Your task to perform on an android device: Search for acer predator on walmart.com, select the first entry, and add it to the cart. Image 0: 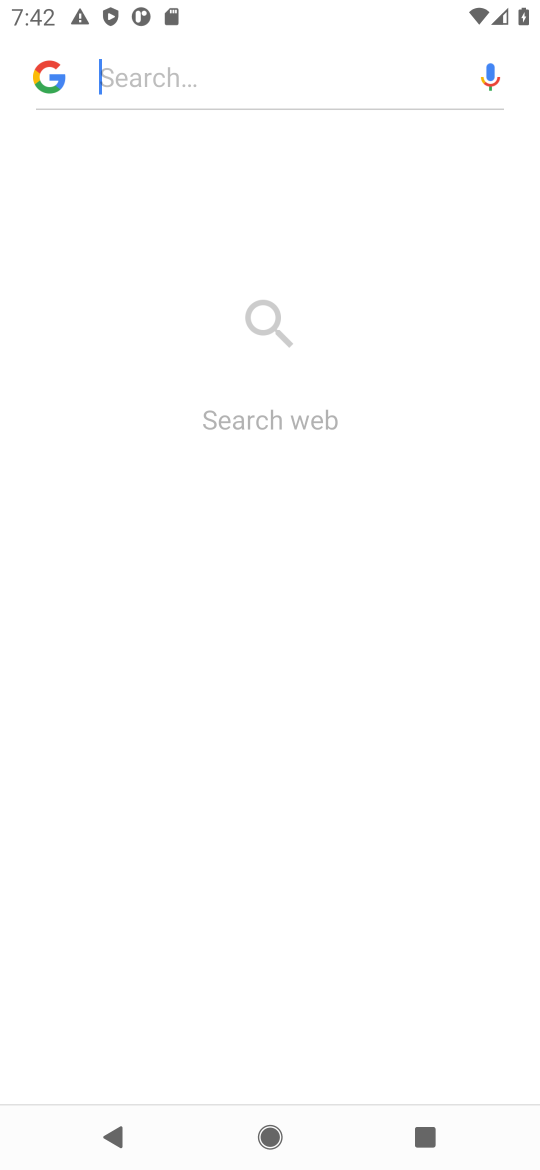
Step 0: press home button
Your task to perform on an android device: Search for acer predator on walmart.com, select the first entry, and add it to the cart. Image 1: 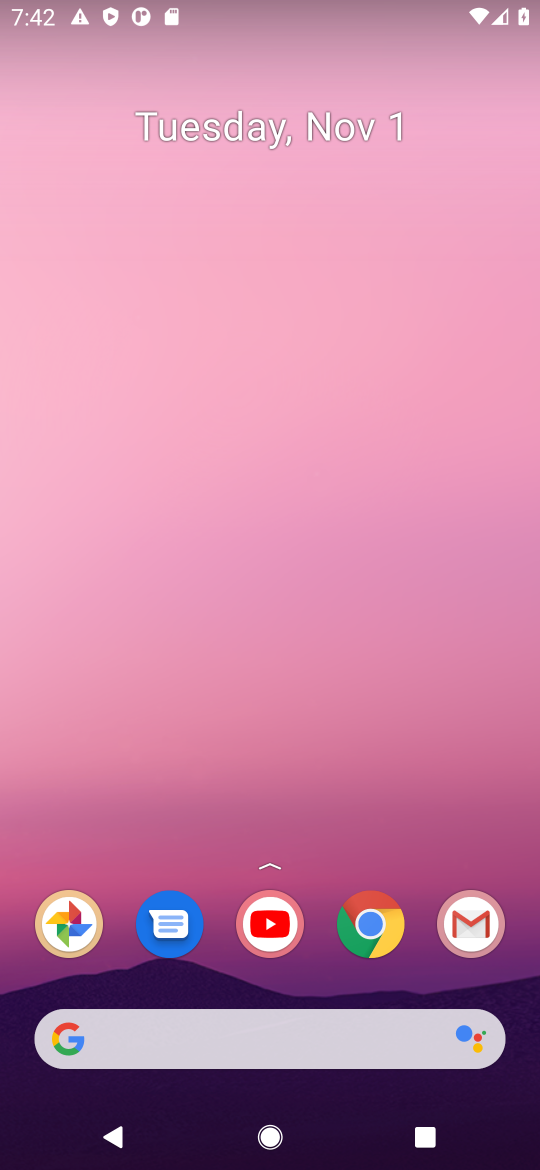
Step 1: click (111, 1029)
Your task to perform on an android device: Search for acer predator on walmart.com, select the first entry, and add it to the cart. Image 2: 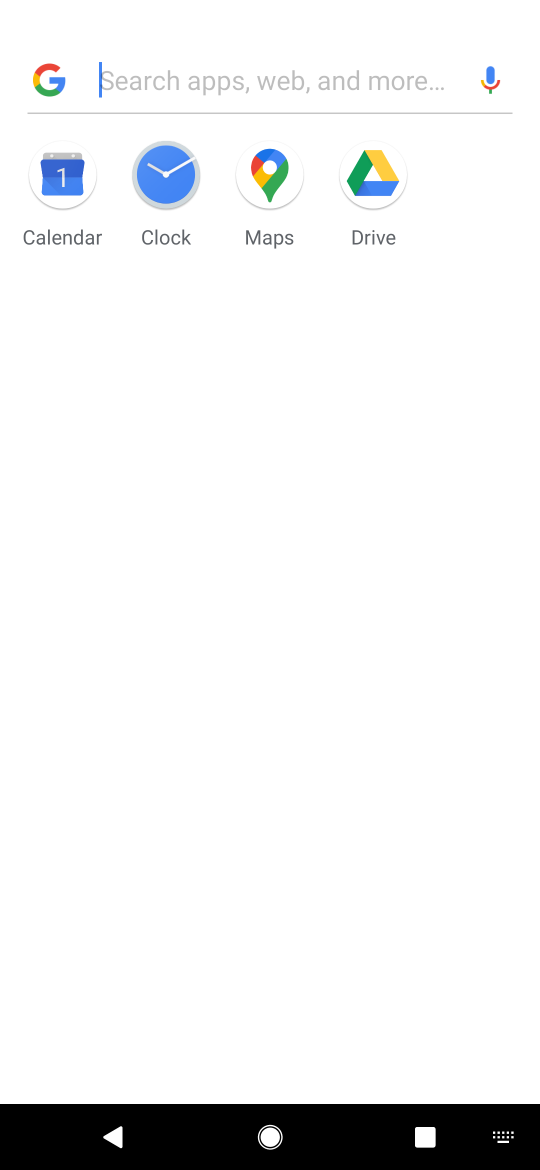
Step 2: type "walmart.com"
Your task to perform on an android device: Search for acer predator on walmart.com, select the first entry, and add it to the cart. Image 3: 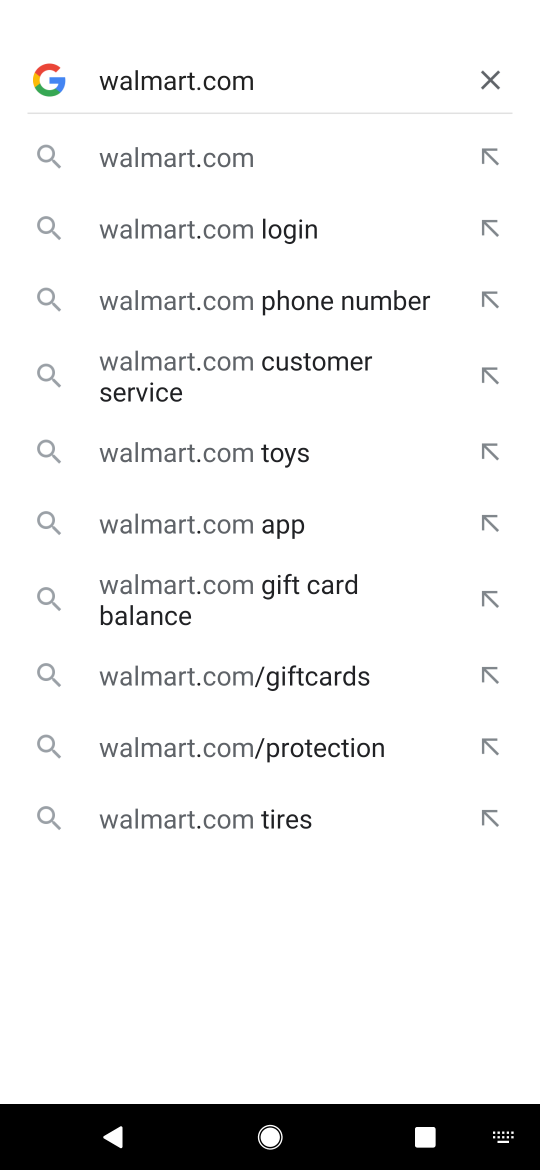
Step 3: press enter
Your task to perform on an android device: Search for acer predator on walmart.com, select the first entry, and add it to the cart. Image 4: 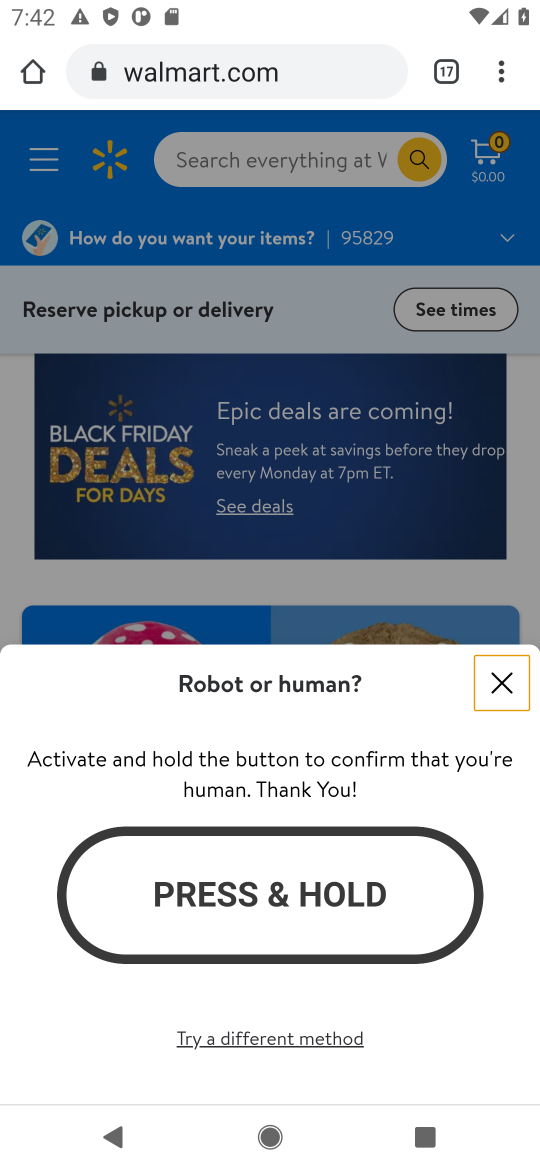
Step 4: click (210, 883)
Your task to perform on an android device: Search for acer predator on walmart.com, select the first entry, and add it to the cart. Image 5: 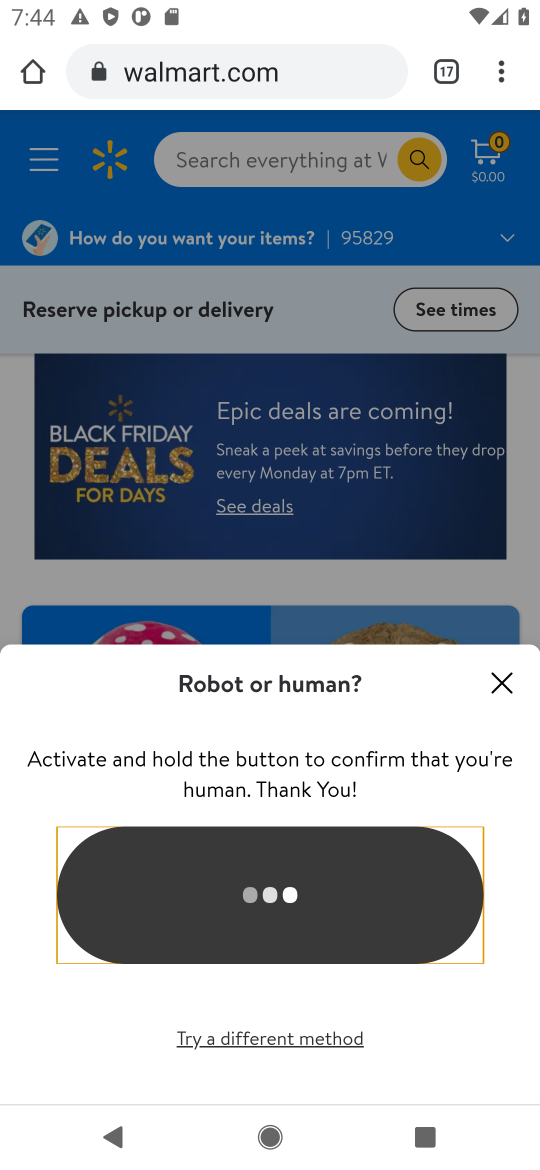
Step 5: task complete